Your task to perform on an android device: Open accessibility settings Image 0: 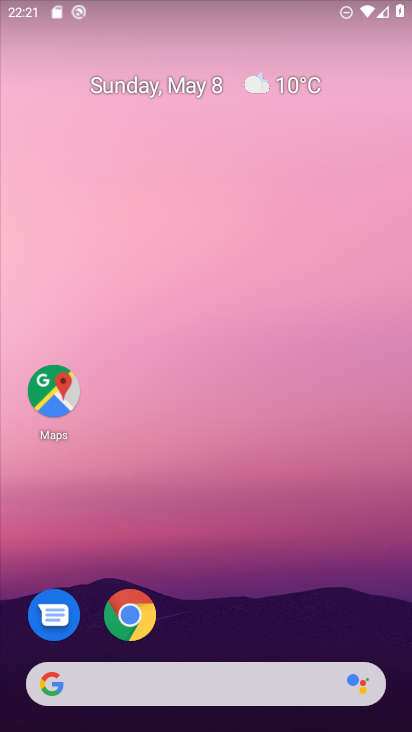
Step 0: drag from (308, 613) to (220, 0)
Your task to perform on an android device: Open accessibility settings Image 1: 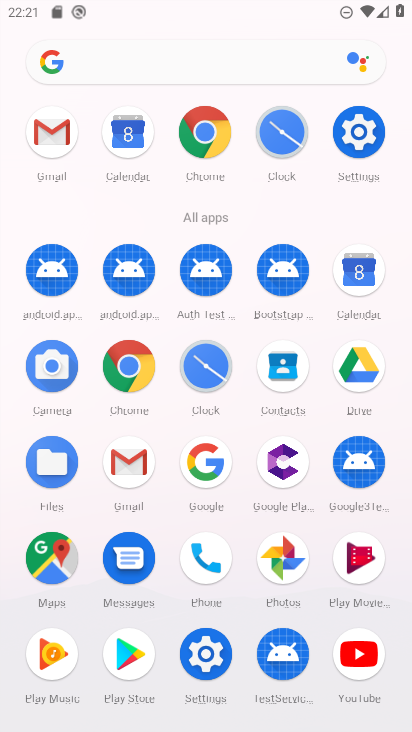
Step 1: click (352, 141)
Your task to perform on an android device: Open accessibility settings Image 2: 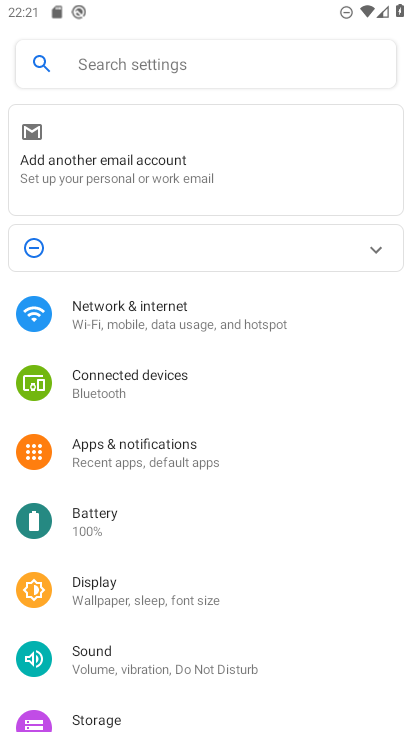
Step 2: drag from (287, 632) to (285, 232)
Your task to perform on an android device: Open accessibility settings Image 3: 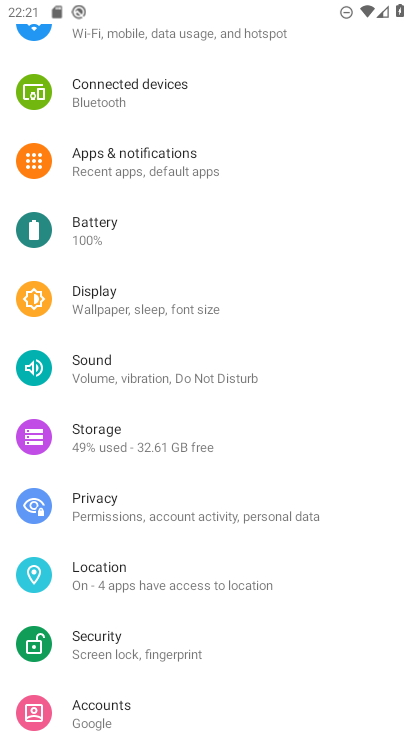
Step 3: drag from (219, 656) to (202, 19)
Your task to perform on an android device: Open accessibility settings Image 4: 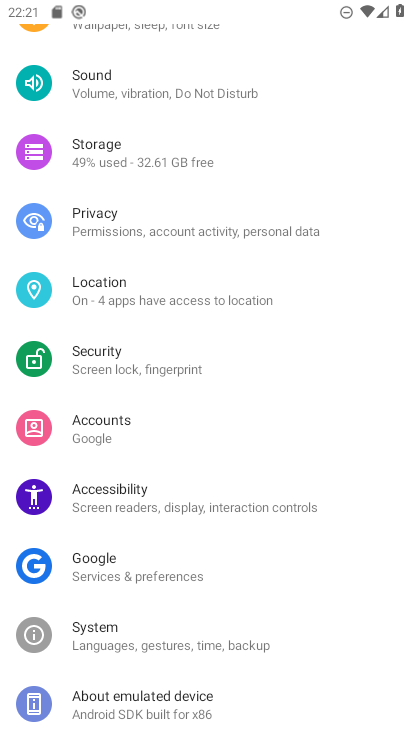
Step 4: click (147, 494)
Your task to perform on an android device: Open accessibility settings Image 5: 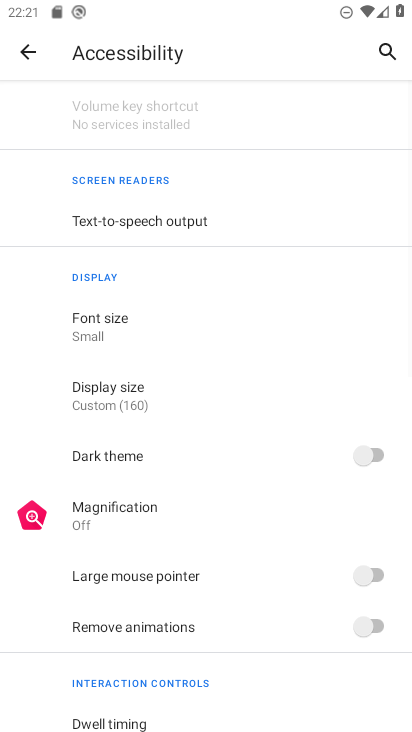
Step 5: task complete